Your task to perform on an android device: Go to eBay Image 0: 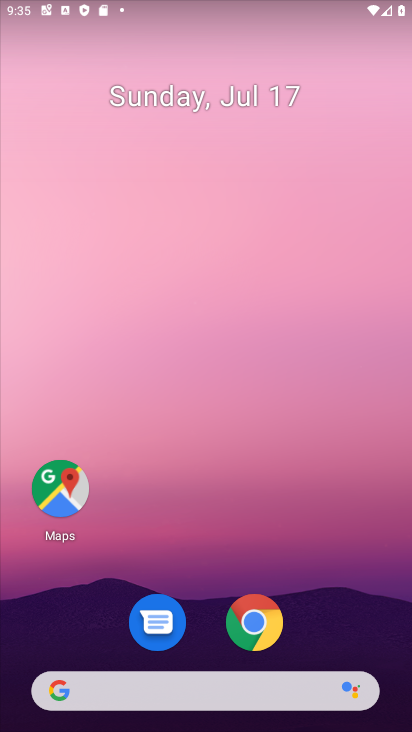
Step 0: click (222, 703)
Your task to perform on an android device: Go to eBay Image 1: 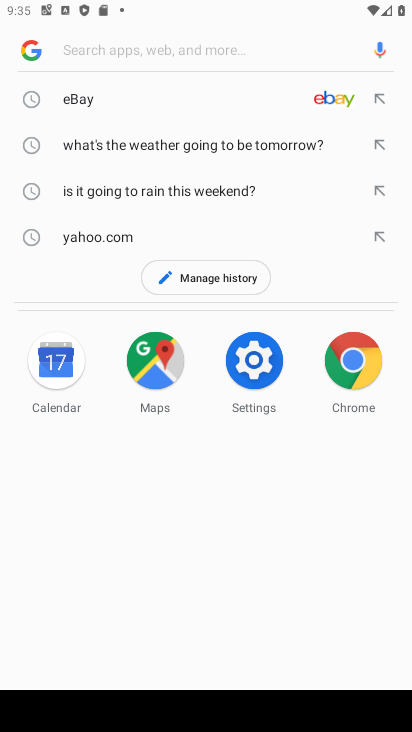
Step 1: click (340, 94)
Your task to perform on an android device: Go to eBay Image 2: 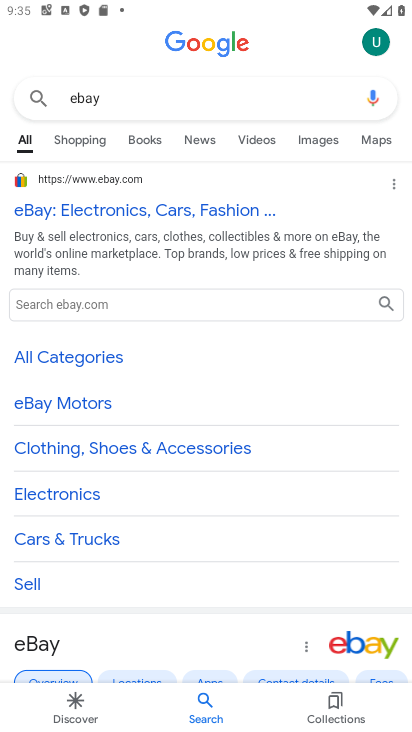
Step 2: click (147, 214)
Your task to perform on an android device: Go to eBay Image 3: 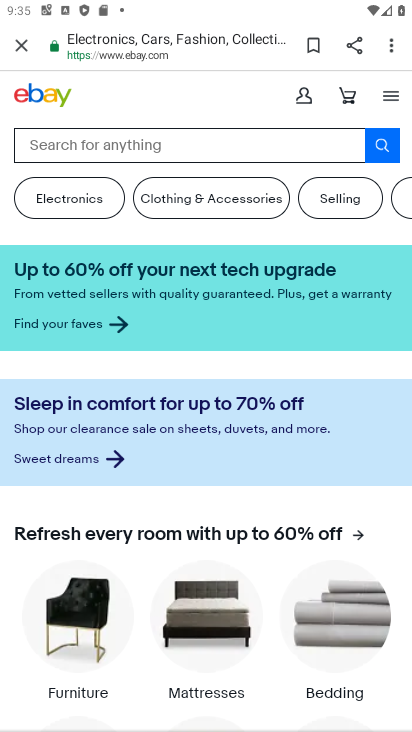
Step 3: task complete